Your task to perform on an android device: Go to wifi settings Image 0: 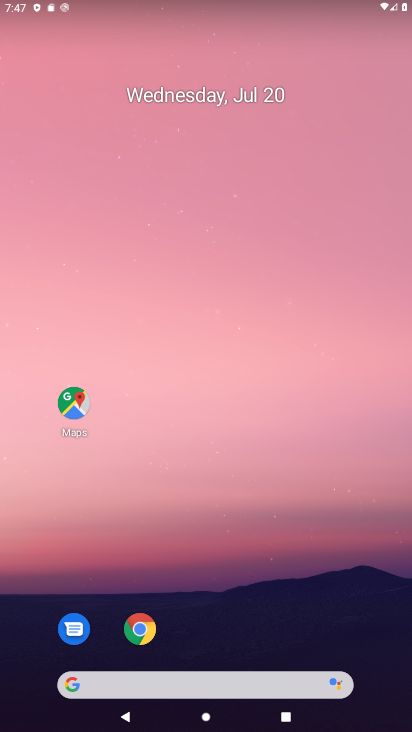
Step 0: drag from (256, 690) to (140, 34)
Your task to perform on an android device: Go to wifi settings Image 1: 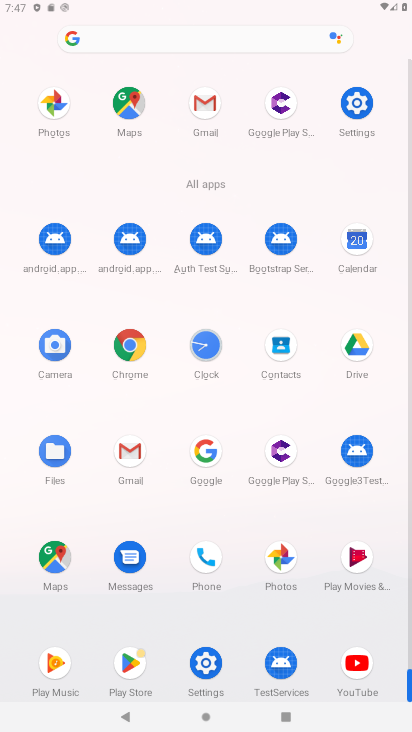
Step 1: drag from (261, 426) to (161, 117)
Your task to perform on an android device: Go to wifi settings Image 2: 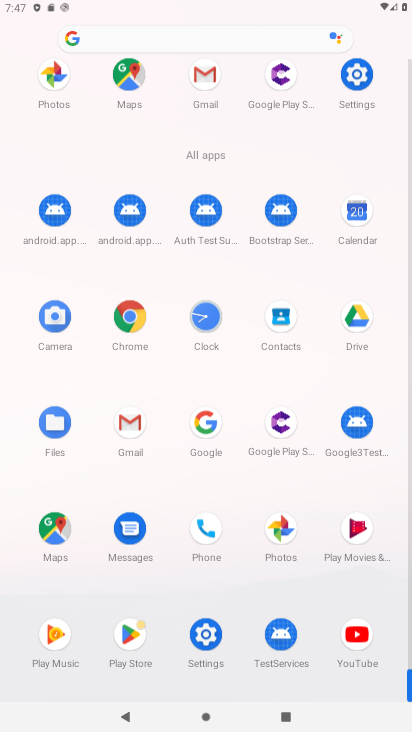
Step 2: drag from (224, 284) to (253, 22)
Your task to perform on an android device: Go to wifi settings Image 3: 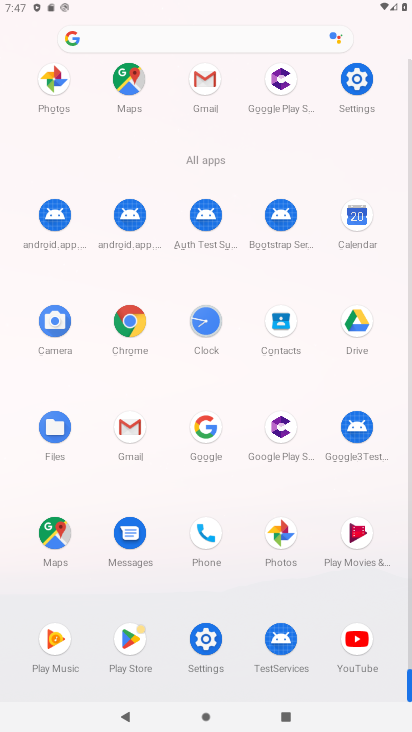
Step 3: click (353, 80)
Your task to perform on an android device: Go to wifi settings Image 4: 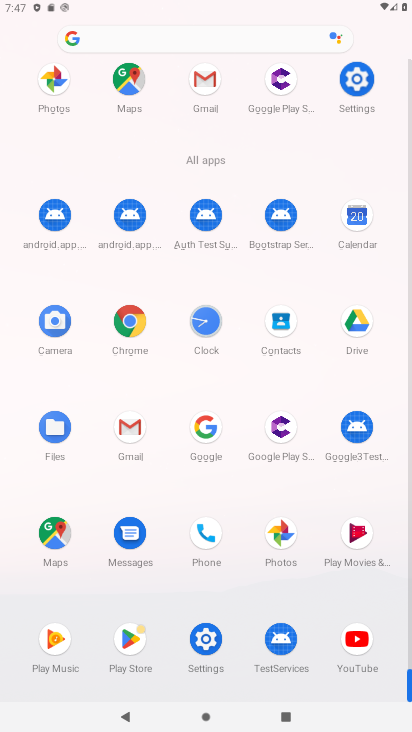
Step 4: click (358, 82)
Your task to perform on an android device: Go to wifi settings Image 5: 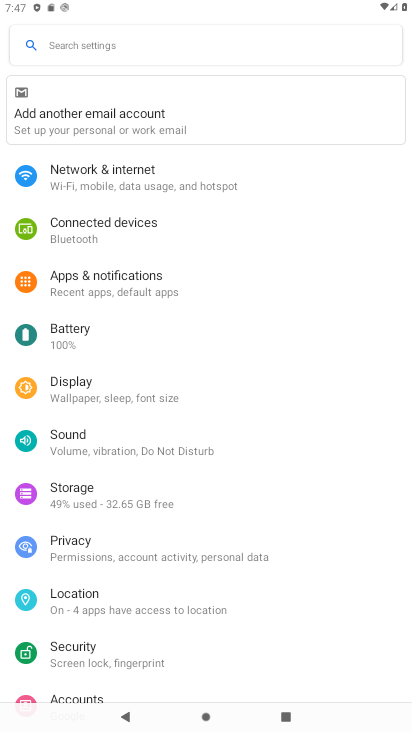
Step 5: click (108, 176)
Your task to perform on an android device: Go to wifi settings Image 6: 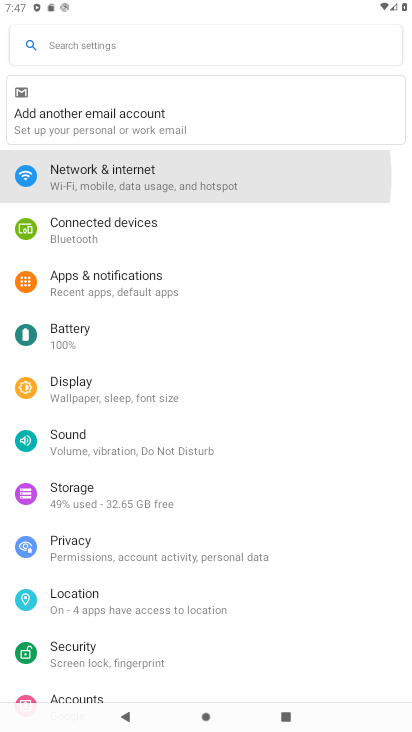
Step 6: click (109, 171)
Your task to perform on an android device: Go to wifi settings Image 7: 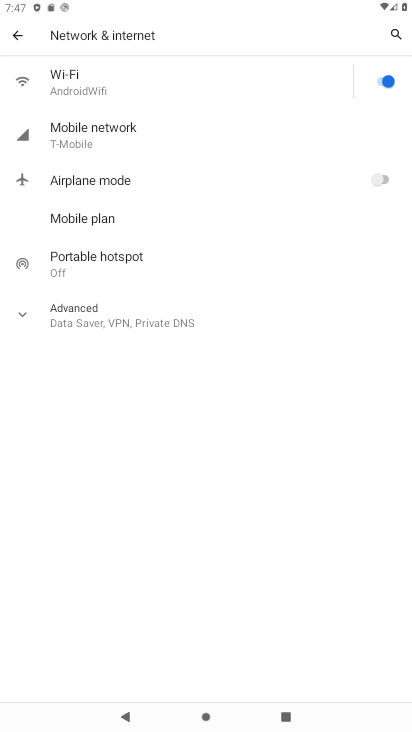
Step 7: task complete